Your task to perform on an android device: refresh tabs in the chrome app Image 0: 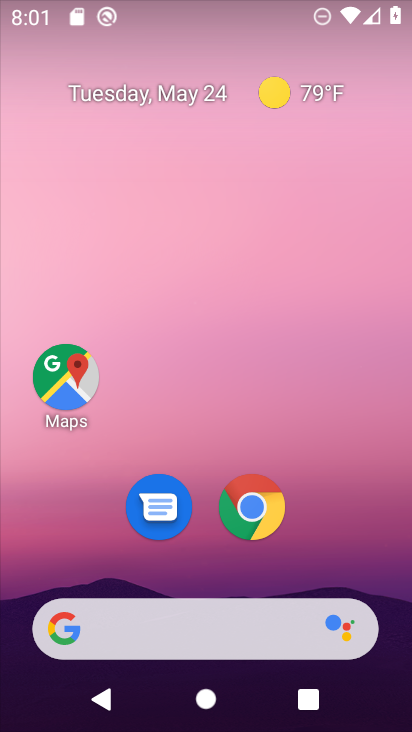
Step 0: drag from (351, 546) to (253, 13)
Your task to perform on an android device: refresh tabs in the chrome app Image 1: 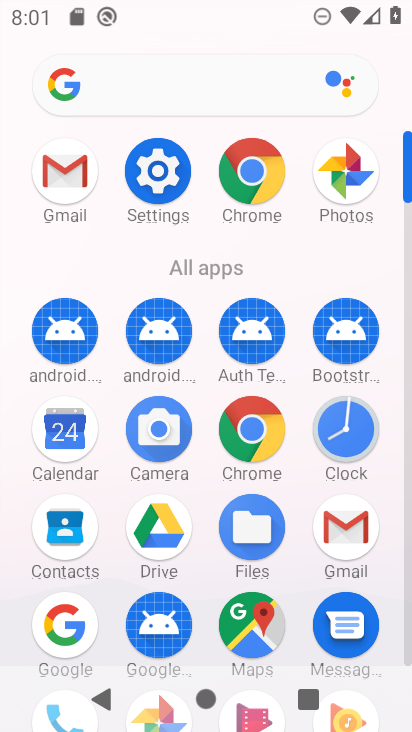
Step 1: drag from (11, 540) to (18, 221)
Your task to perform on an android device: refresh tabs in the chrome app Image 2: 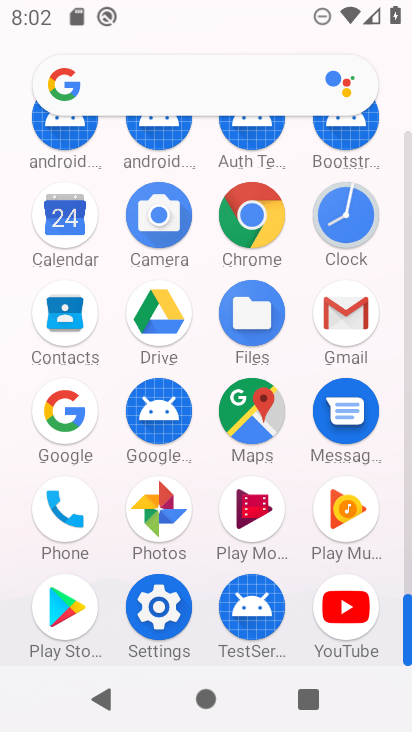
Step 2: click (251, 213)
Your task to perform on an android device: refresh tabs in the chrome app Image 3: 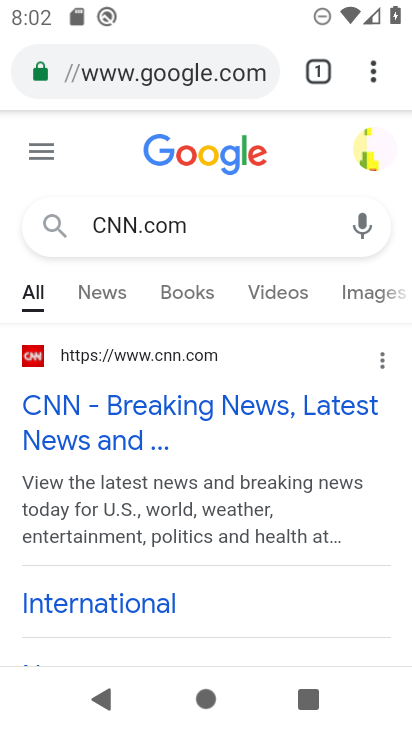
Step 3: click (370, 73)
Your task to perform on an android device: refresh tabs in the chrome app Image 4: 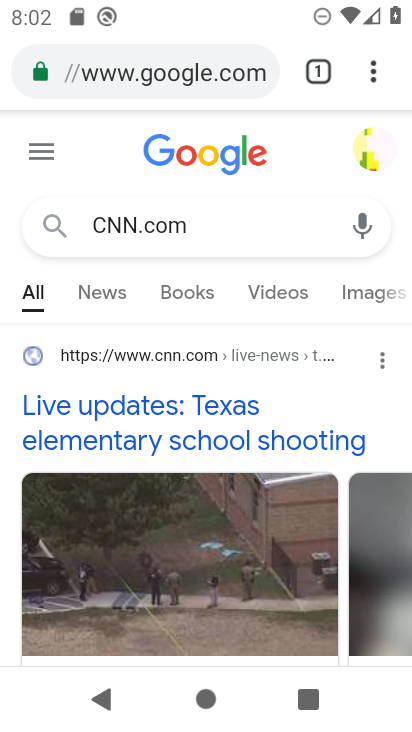
Step 4: task complete